Your task to perform on an android device: Open the web browser Image 0: 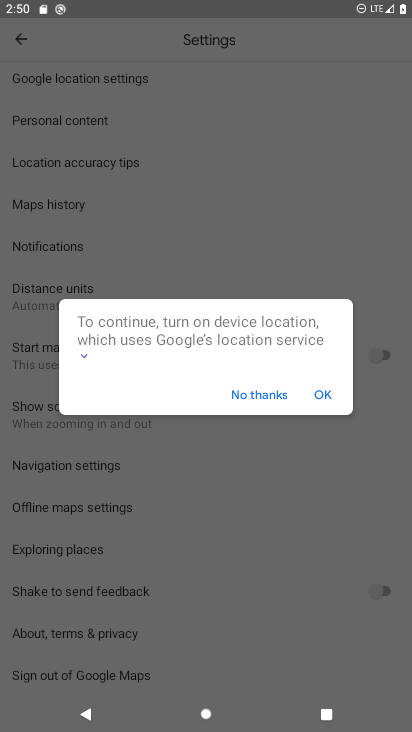
Step 0: press home button
Your task to perform on an android device: Open the web browser Image 1: 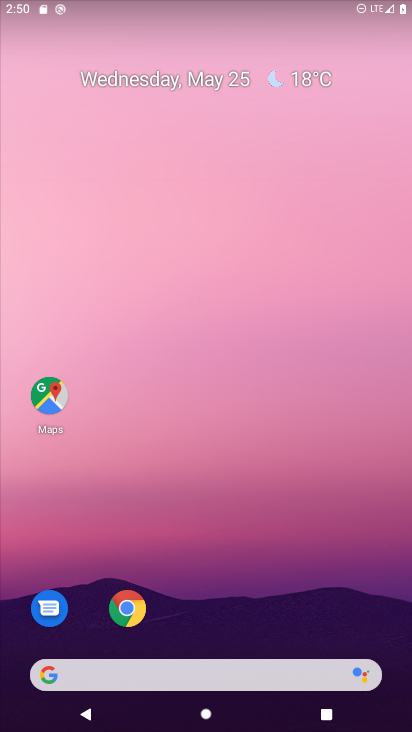
Step 1: click (124, 610)
Your task to perform on an android device: Open the web browser Image 2: 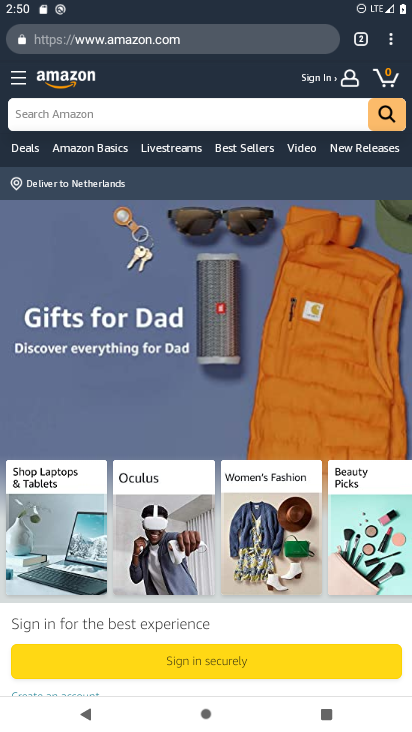
Step 2: task complete